Your task to perform on an android device: manage bookmarks in the chrome app Image 0: 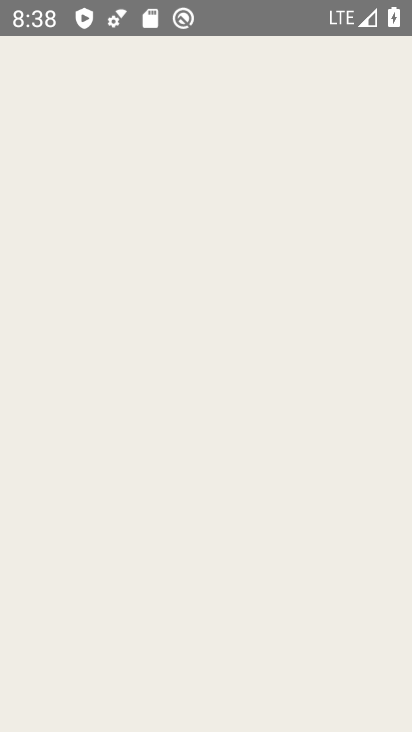
Step 0: click (380, 255)
Your task to perform on an android device: manage bookmarks in the chrome app Image 1: 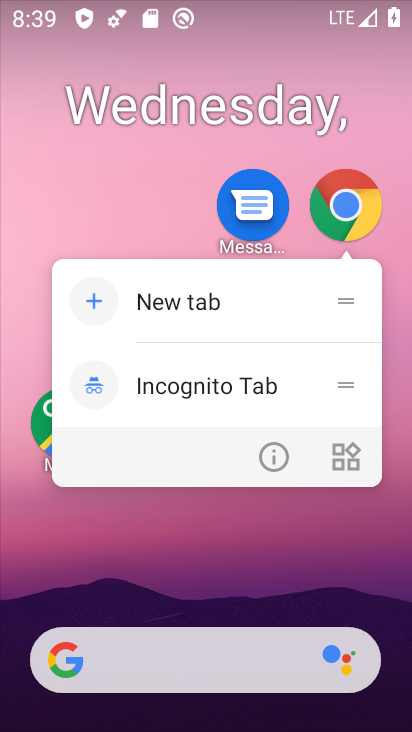
Step 1: click (156, 531)
Your task to perform on an android device: manage bookmarks in the chrome app Image 2: 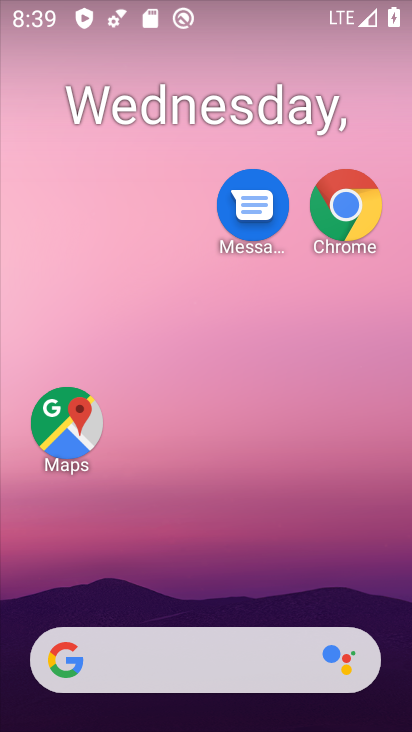
Step 2: click (330, 229)
Your task to perform on an android device: manage bookmarks in the chrome app Image 3: 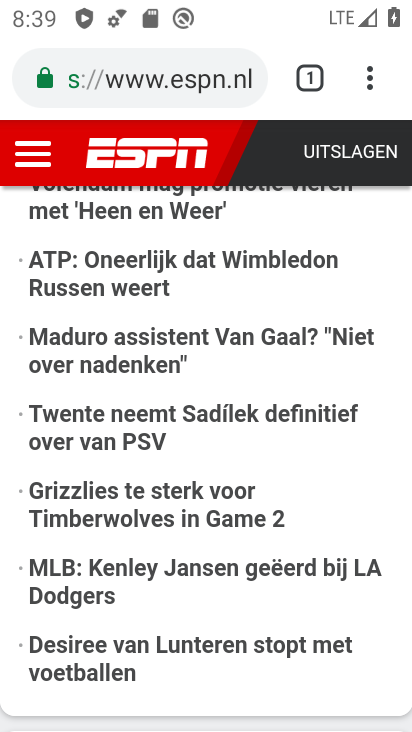
Step 3: click (374, 67)
Your task to perform on an android device: manage bookmarks in the chrome app Image 4: 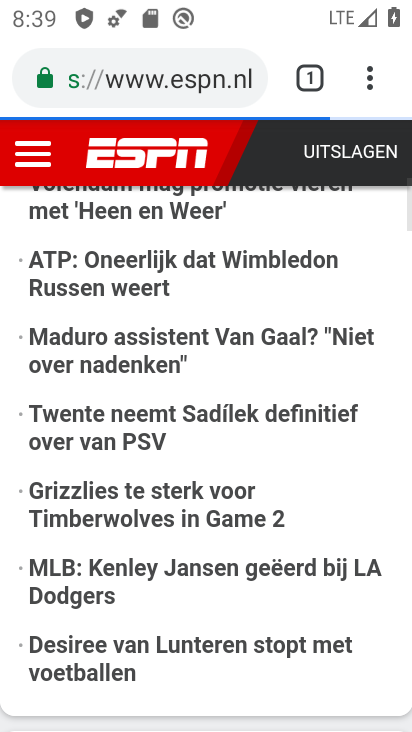
Step 4: drag from (380, 89) to (129, 394)
Your task to perform on an android device: manage bookmarks in the chrome app Image 5: 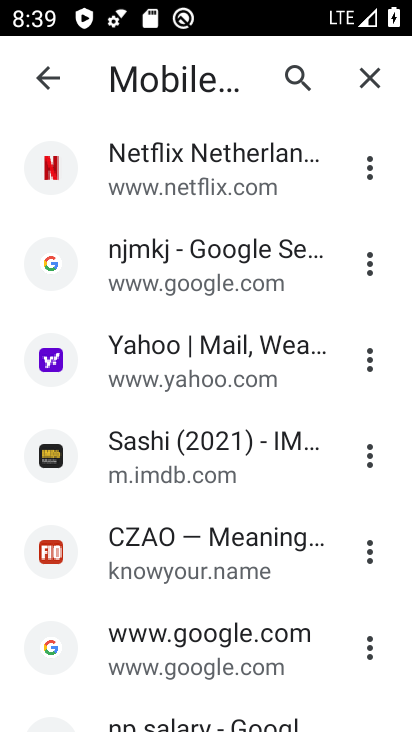
Step 5: drag from (229, 568) to (331, 273)
Your task to perform on an android device: manage bookmarks in the chrome app Image 6: 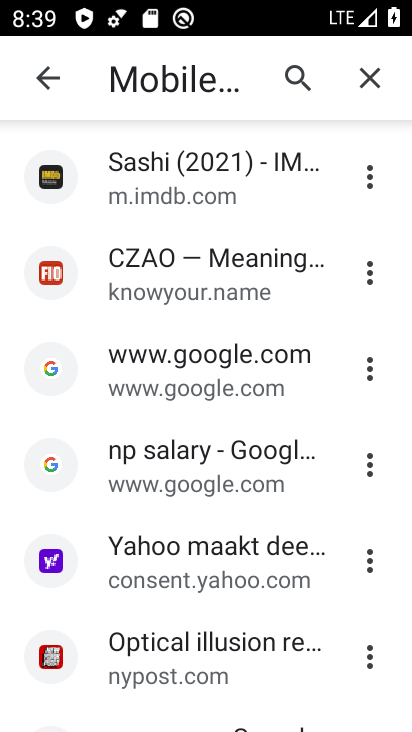
Step 6: drag from (298, 527) to (389, 105)
Your task to perform on an android device: manage bookmarks in the chrome app Image 7: 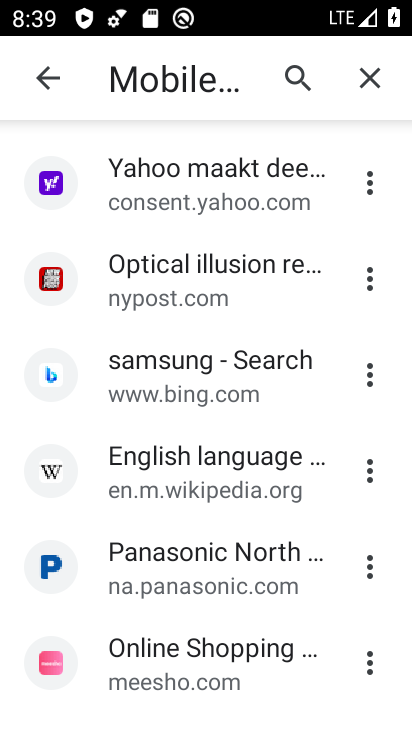
Step 7: drag from (253, 668) to (263, 575)
Your task to perform on an android device: manage bookmarks in the chrome app Image 8: 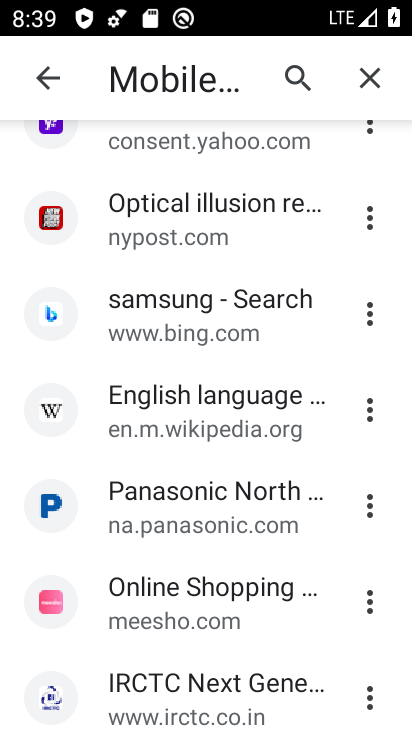
Step 8: drag from (278, 683) to (291, 600)
Your task to perform on an android device: manage bookmarks in the chrome app Image 9: 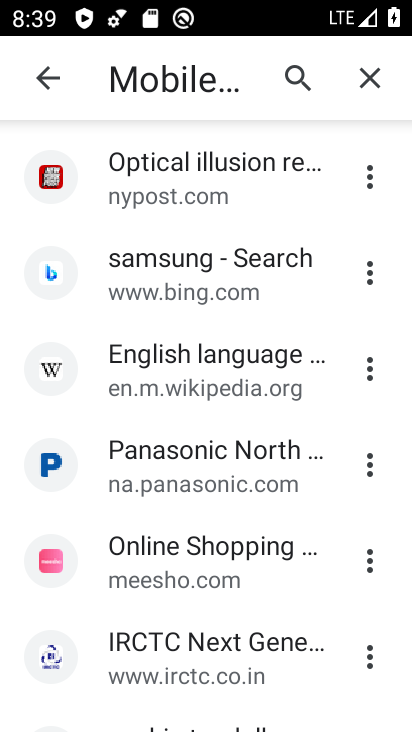
Step 9: click (278, 465)
Your task to perform on an android device: manage bookmarks in the chrome app Image 10: 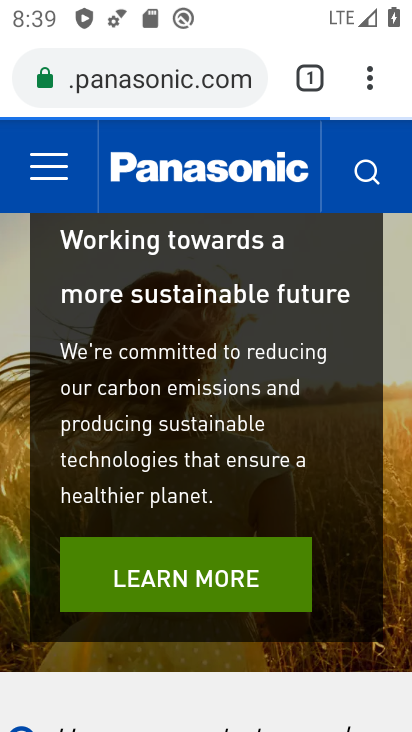
Step 10: task complete